Your task to perform on an android device: delete the emails in spam in the gmail app Image 0: 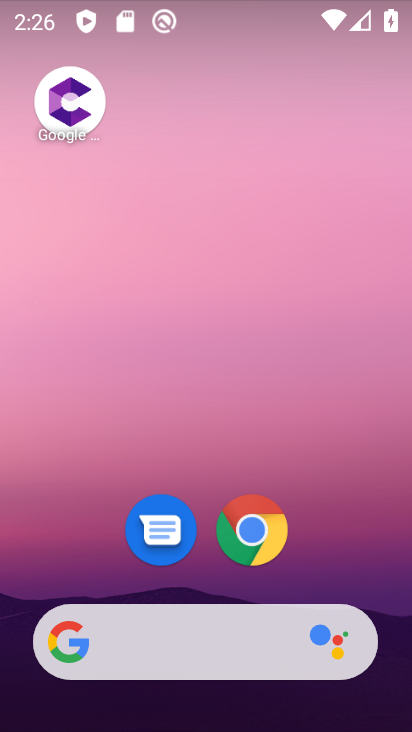
Step 0: drag from (48, 572) to (202, 161)
Your task to perform on an android device: delete the emails in spam in the gmail app Image 1: 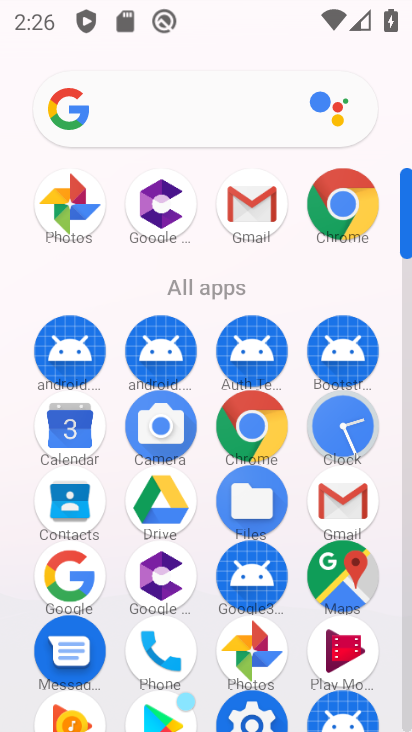
Step 1: click (331, 519)
Your task to perform on an android device: delete the emails in spam in the gmail app Image 2: 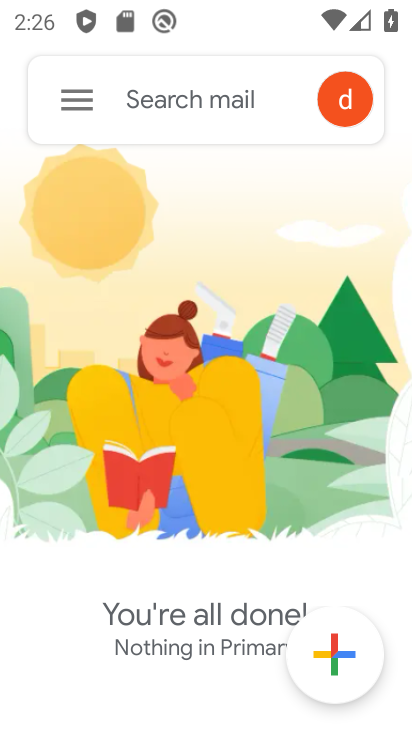
Step 2: click (58, 97)
Your task to perform on an android device: delete the emails in spam in the gmail app Image 3: 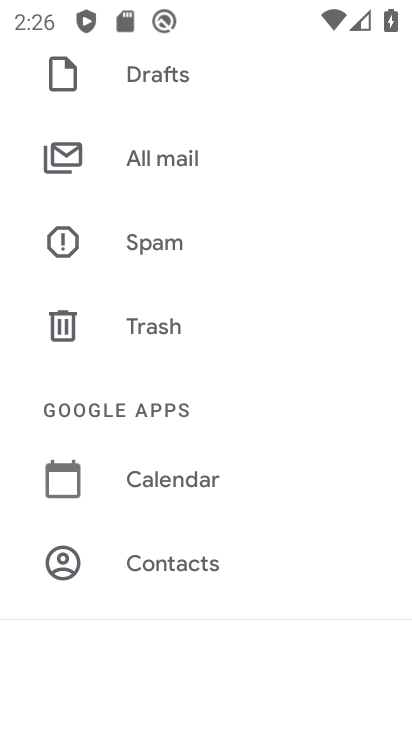
Step 3: drag from (265, 282) to (224, 464)
Your task to perform on an android device: delete the emails in spam in the gmail app Image 4: 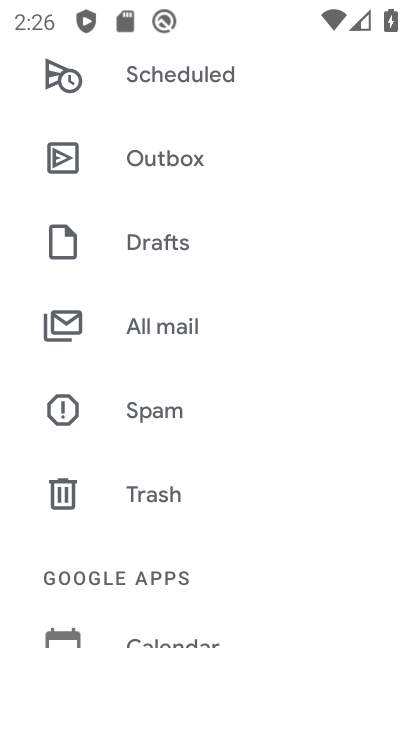
Step 4: click (204, 412)
Your task to perform on an android device: delete the emails in spam in the gmail app Image 5: 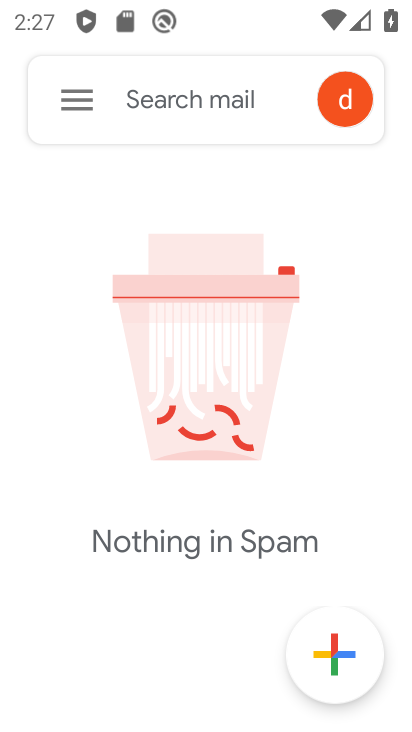
Step 5: task complete